Your task to perform on an android device: Is it going to rain this weekend? Image 0: 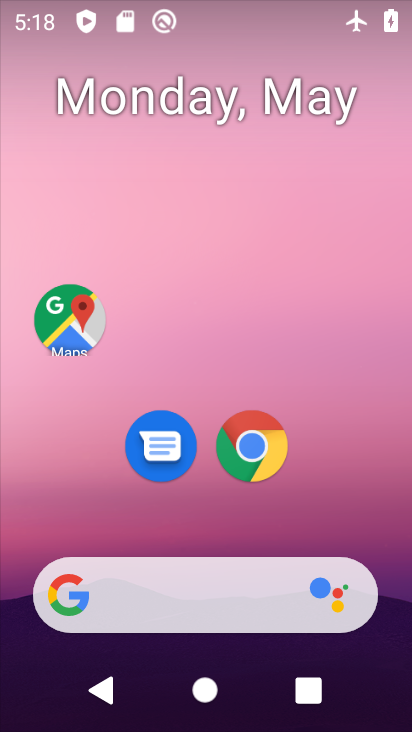
Step 0: click (225, 579)
Your task to perform on an android device: Is it going to rain this weekend? Image 1: 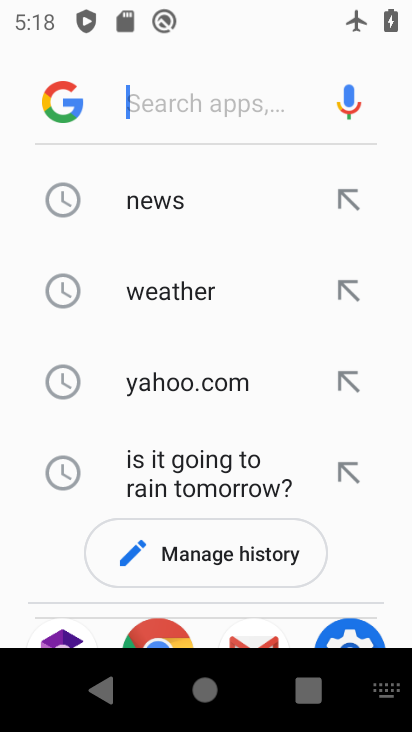
Step 1: click (177, 292)
Your task to perform on an android device: Is it going to rain this weekend? Image 2: 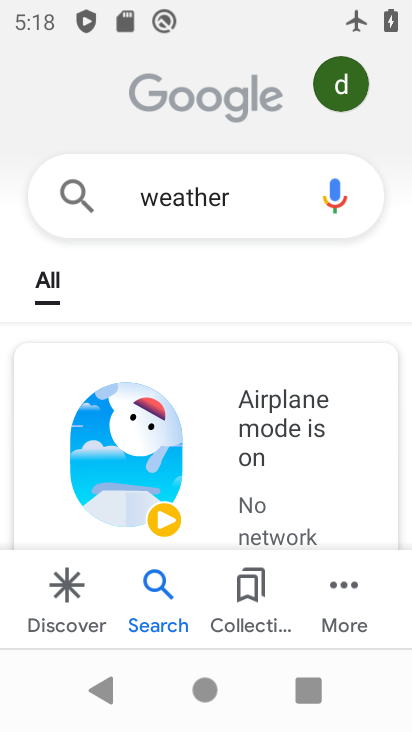
Step 2: task complete